Your task to perform on an android device: open app "LiveIn - Share Your Moment" (install if not already installed) Image 0: 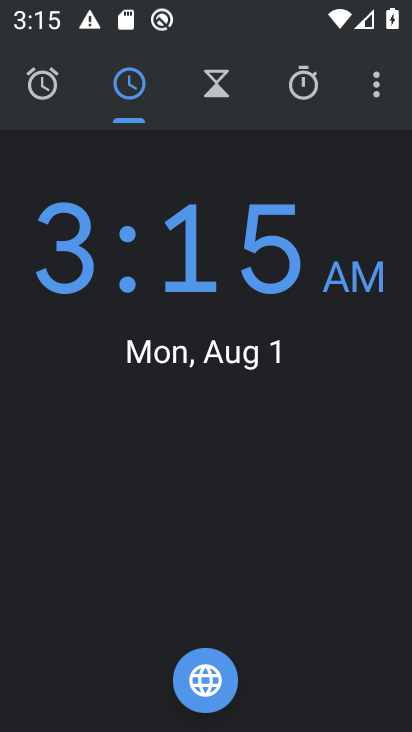
Step 0: press home button
Your task to perform on an android device: open app "LiveIn - Share Your Moment" (install if not already installed) Image 1: 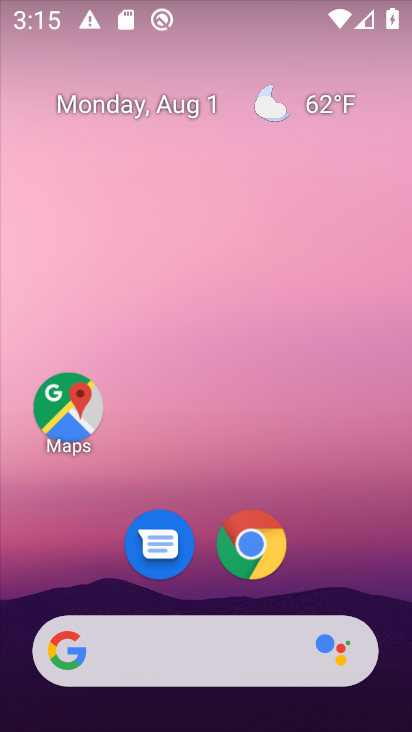
Step 1: drag from (379, 577) to (259, 42)
Your task to perform on an android device: open app "LiveIn - Share Your Moment" (install if not already installed) Image 2: 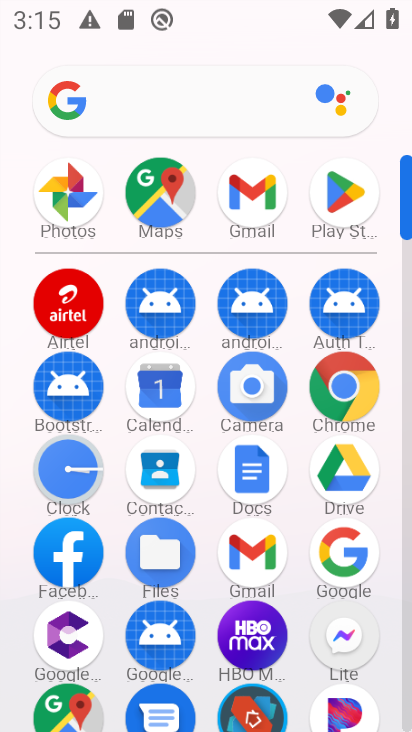
Step 2: click (325, 183)
Your task to perform on an android device: open app "LiveIn - Share Your Moment" (install if not already installed) Image 3: 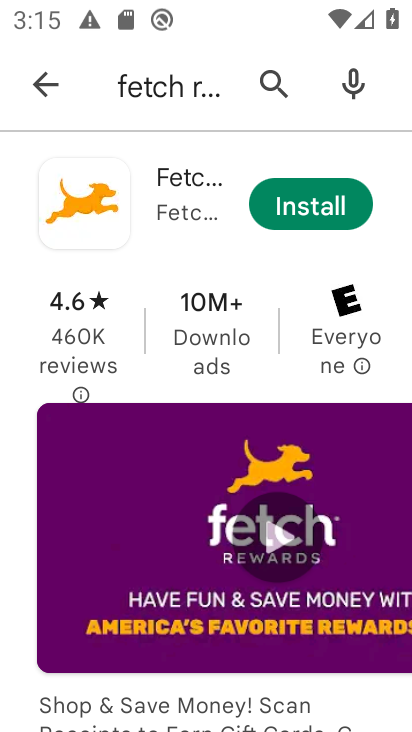
Step 3: press back button
Your task to perform on an android device: open app "LiveIn - Share Your Moment" (install if not already installed) Image 4: 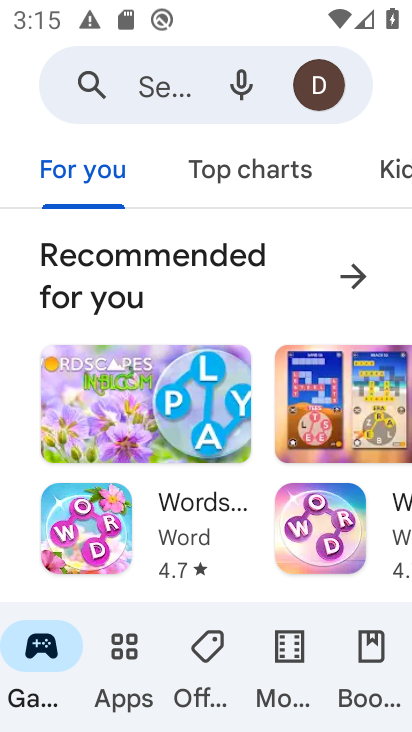
Step 4: click (150, 81)
Your task to perform on an android device: open app "LiveIn - Share Your Moment" (install if not already installed) Image 5: 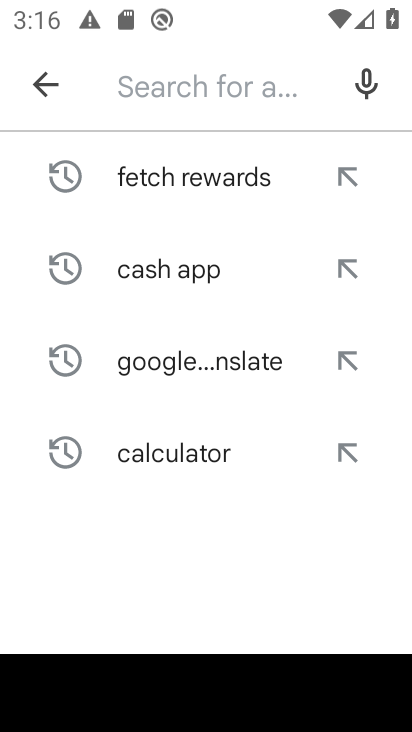
Step 5: type "LiveIn - Share Your Moment"
Your task to perform on an android device: open app "LiveIn - Share Your Moment" (install if not already installed) Image 6: 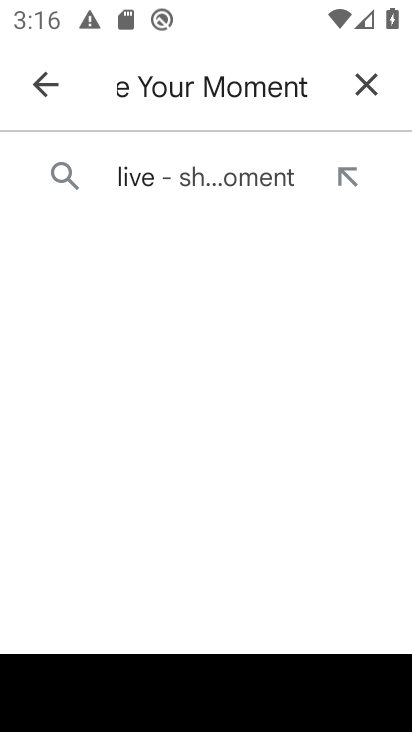
Step 6: click (141, 173)
Your task to perform on an android device: open app "LiveIn - Share Your Moment" (install if not already installed) Image 7: 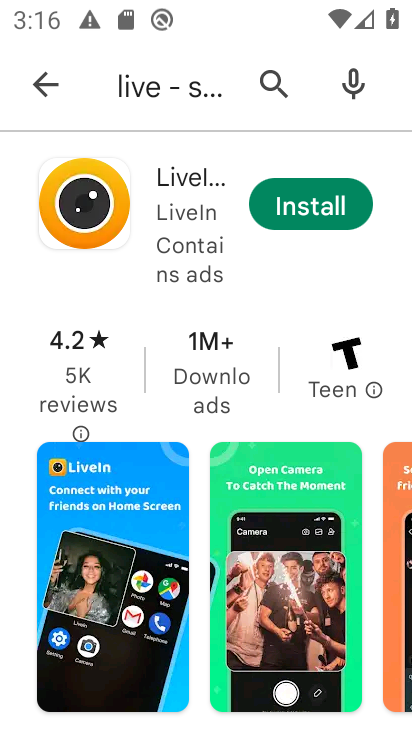
Step 7: task complete